Your task to perform on an android device: Go to privacy settings Image 0: 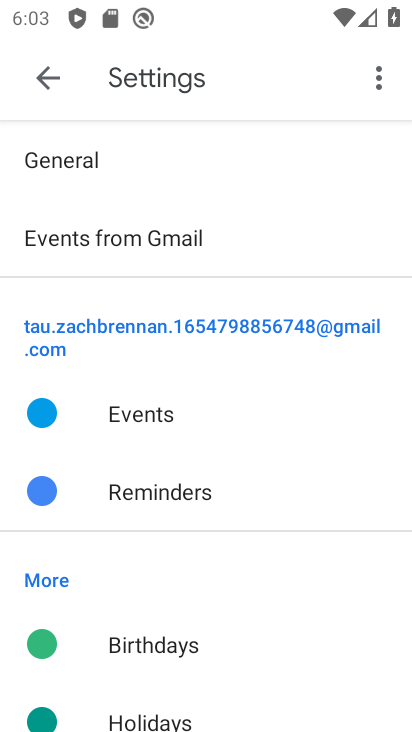
Step 0: press home button
Your task to perform on an android device: Go to privacy settings Image 1: 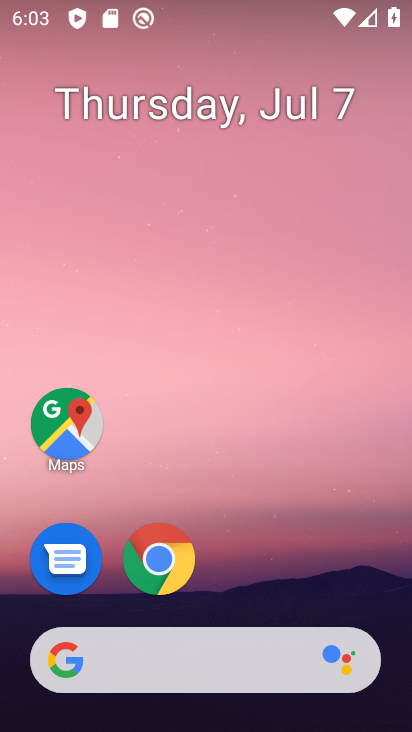
Step 1: drag from (338, 601) to (338, 4)
Your task to perform on an android device: Go to privacy settings Image 2: 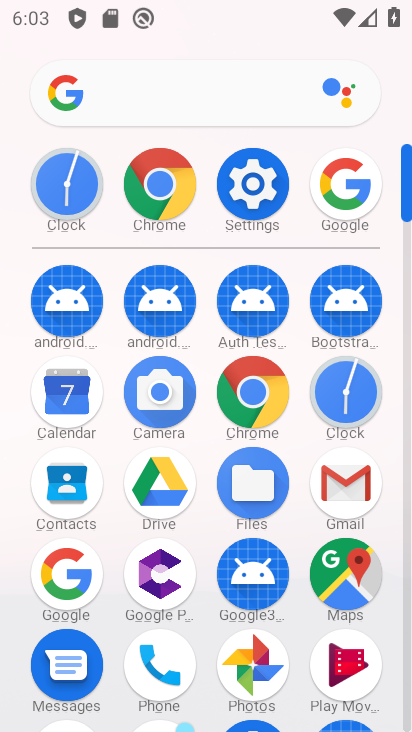
Step 2: click (280, 188)
Your task to perform on an android device: Go to privacy settings Image 3: 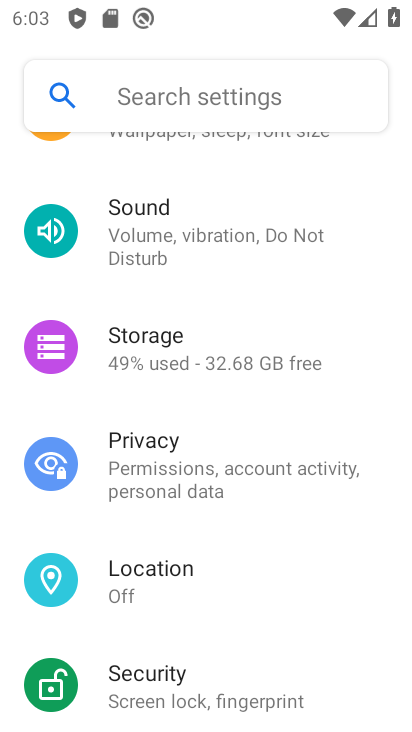
Step 3: click (189, 491)
Your task to perform on an android device: Go to privacy settings Image 4: 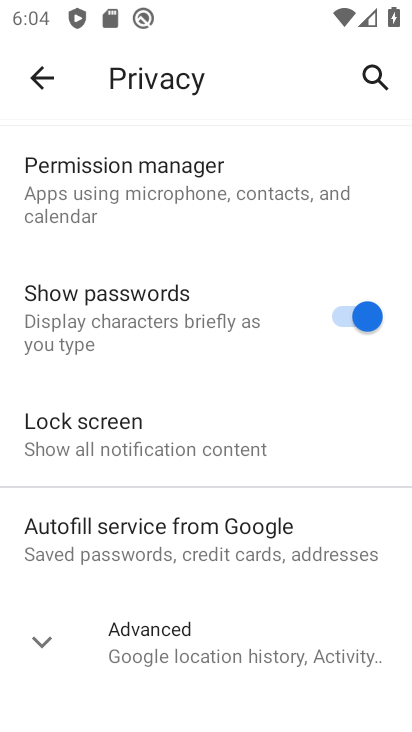
Step 4: task complete